Your task to perform on an android device: turn off picture-in-picture Image 0: 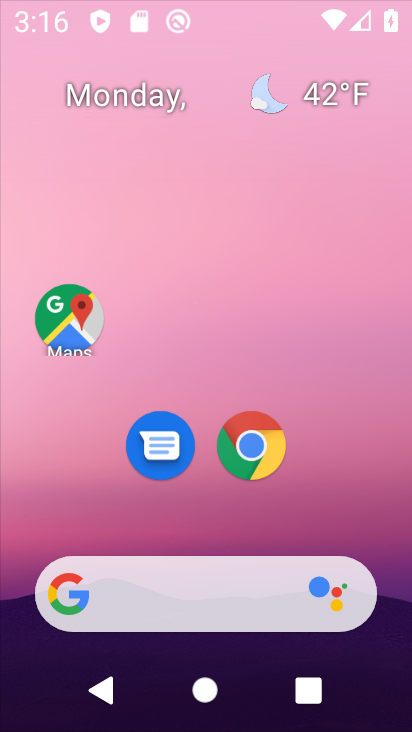
Step 0: click (213, 52)
Your task to perform on an android device: turn off picture-in-picture Image 1: 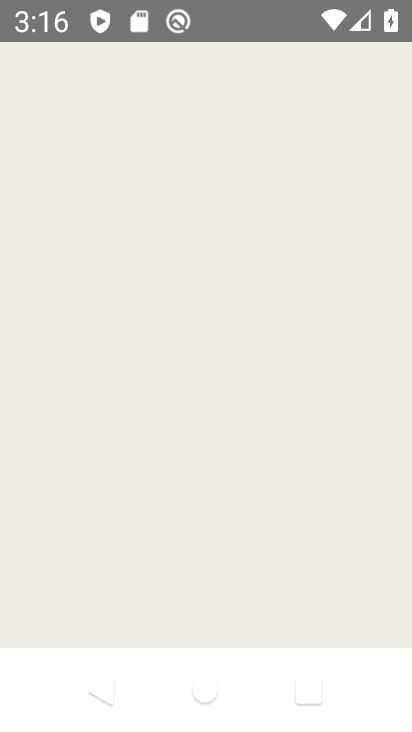
Step 1: press home button
Your task to perform on an android device: turn off picture-in-picture Image 2: 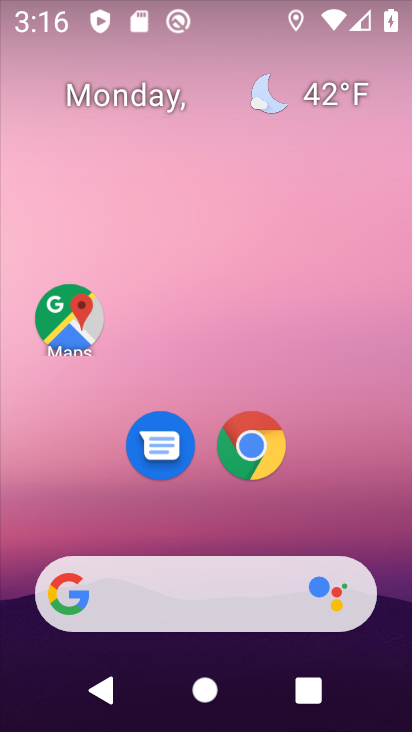
Step 2: drag from (6, 481) to (205, 24)
Your task to perform on an android device: turn off picture-in-picture Image 3: 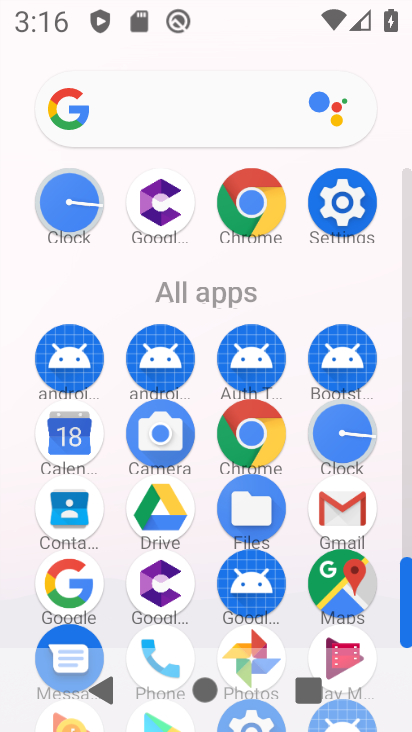
Step 3: click (242, 212)
Your task to perform on an android device: turn off picture-in-picture Image 4: 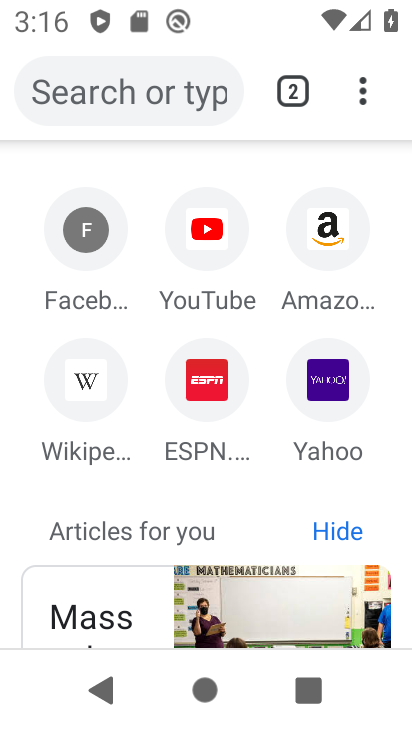
Step 4: click (364, 89)
Your task to perform on an android device: turn off picture-in-picture Image 5: 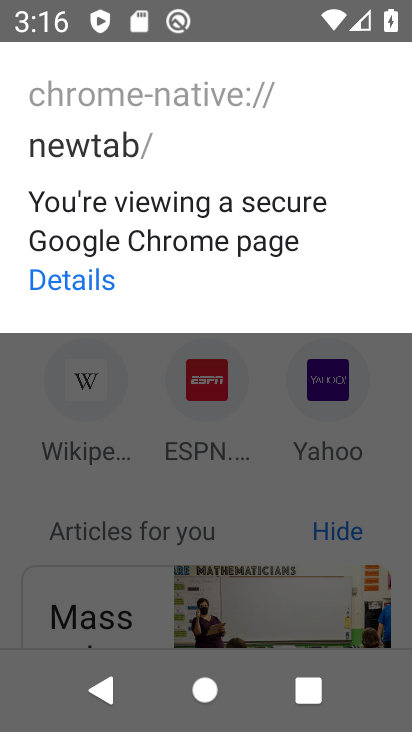
Step 5: click (261, 510)
Your task to perform on an android device: turn off picture-in-picture Image 6: 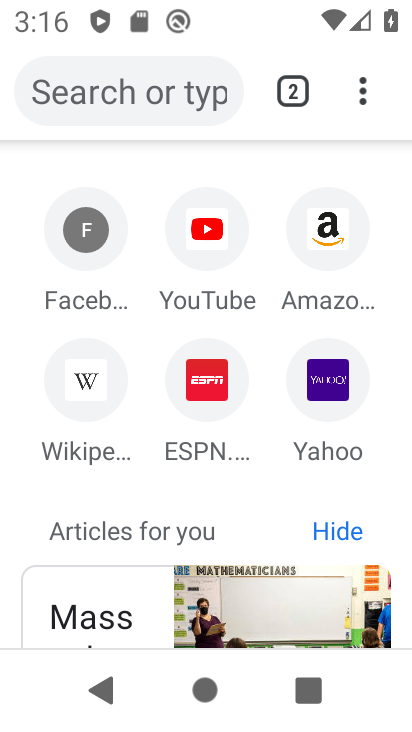
Step 6: click (357, 83)
Your task to perform on an android device: turn off picture-in-picture Image 7: 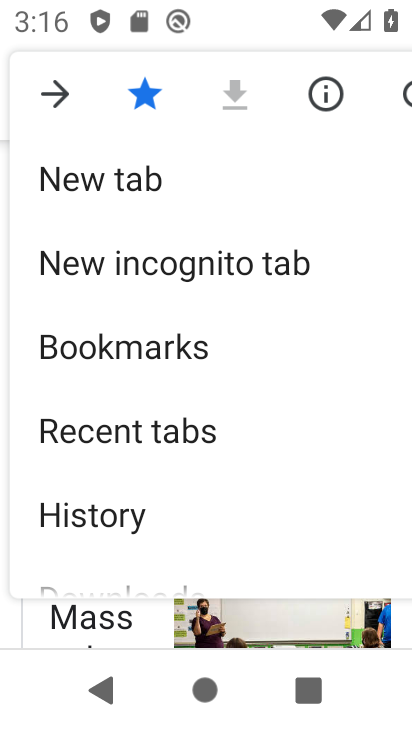
Step 7: drag from (195, 491) to (197, 268)
Your task to perform on an android device: turn off picture-in-picture Image 8: 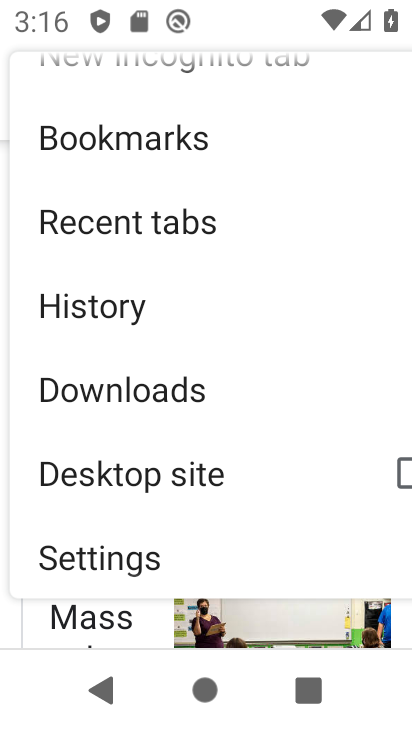
Step 8: click (125, 544)
Your task to perform on an android device: turn off picture-in-picture Image 9: 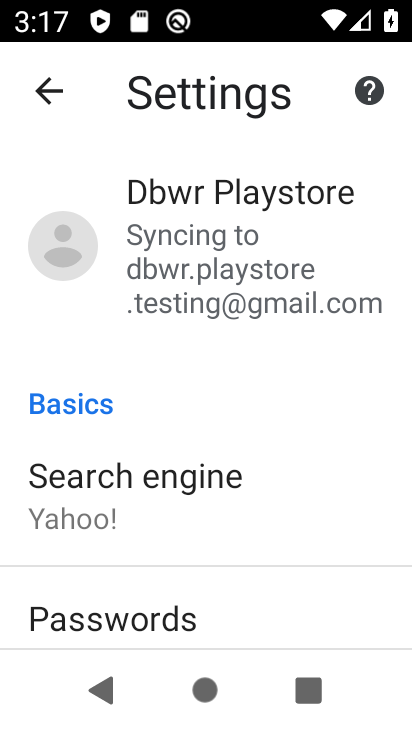
Step 9: task complete